Your task to perform on an android device: delete a single message in the gmail app Image 0: 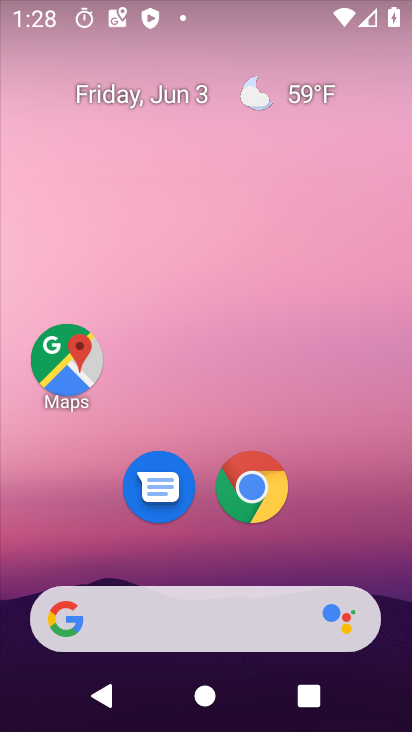
Step 0: drag from (208, 519) to (213, 21)
Your task to perform on an android device: delete a single message in the gmail app Image 1: 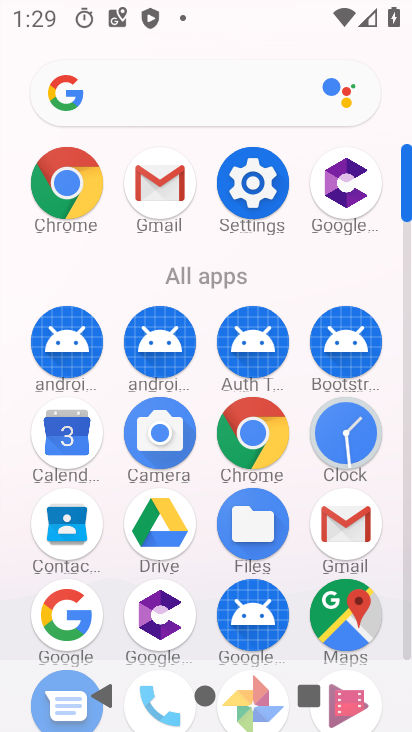
Step 1: click (343, 514)
Your task to perform on an android device: delete a single message in the gmail app Image 2: 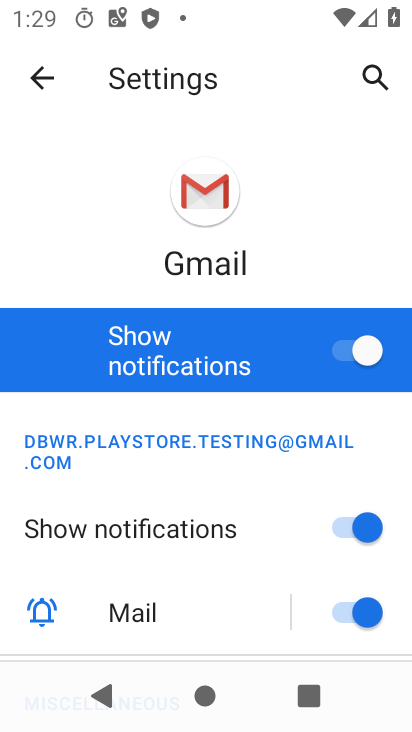
Step 2: click (40, 72)
Your task to perform on an android device: delete a single message in the gmail app Image 3: 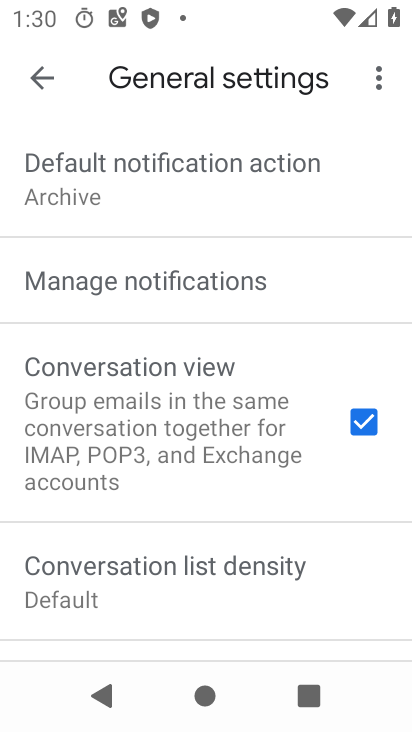
Step 3: click (47, 75)
Your task to perform on an android device: delete a single message in the gmail app Image 4: 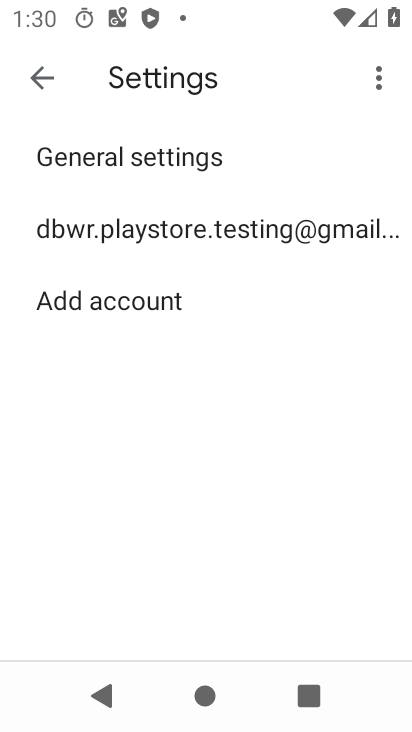
Step 4: click (47, 77)
Your task to perform on an android device: delete a single message in the gmail app Image 5: 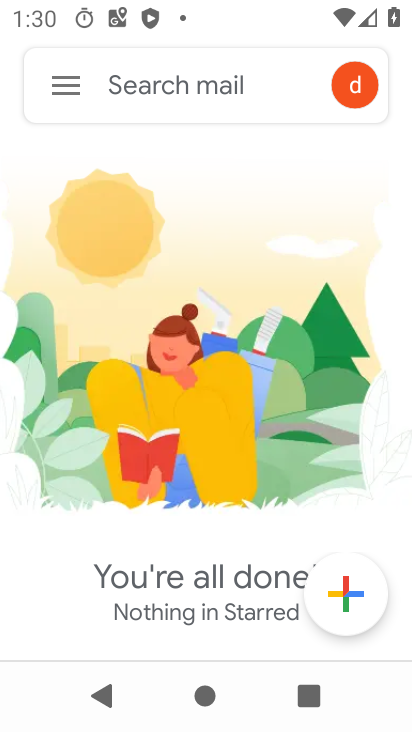
Step 5: task complete